Your task to perform on an android device: Search for a 4k TV on Best Buy Image 0: 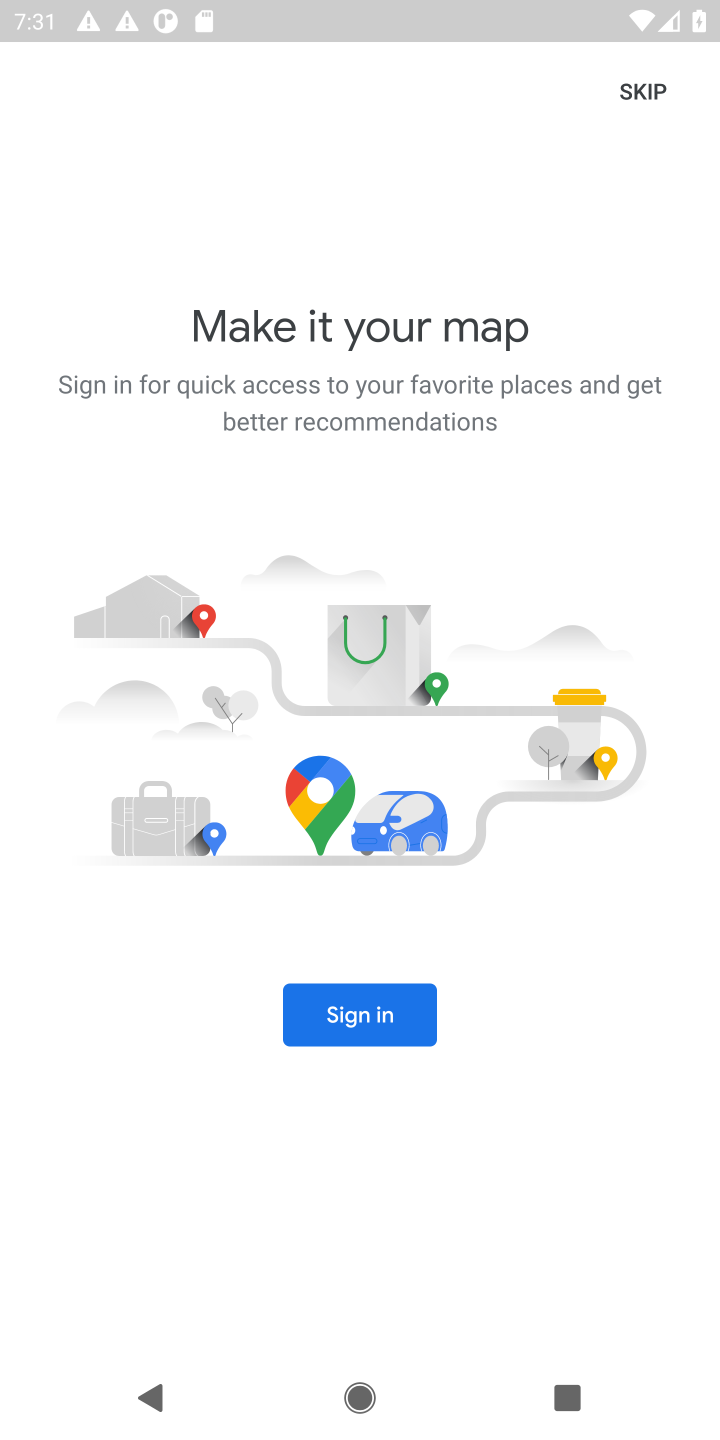
Step 0: press home button
Your task to perform on an android device: Search for a 4k TV on Best Buy Image 1: 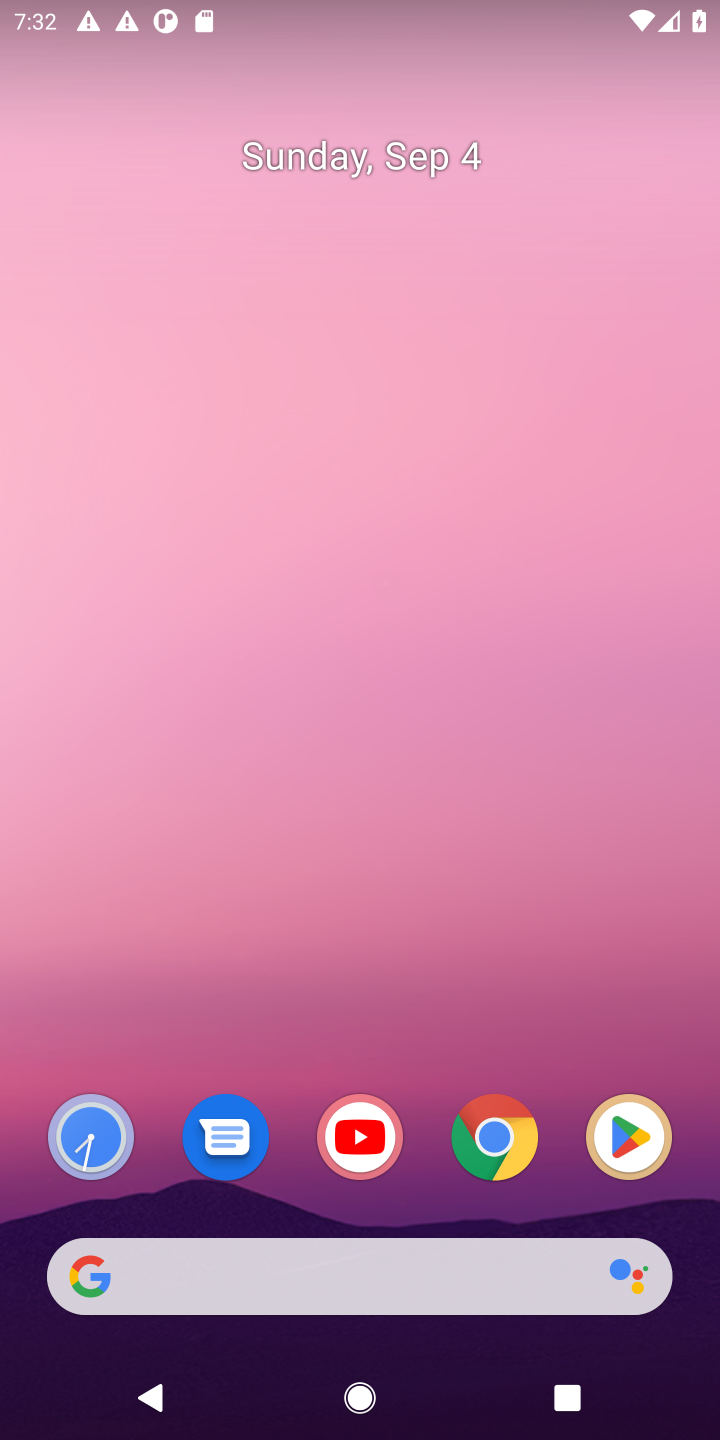
Step 1: click (489, 1140)
Your task to perform on an android device: Search for a 4k TV on Best Buy Image 2: 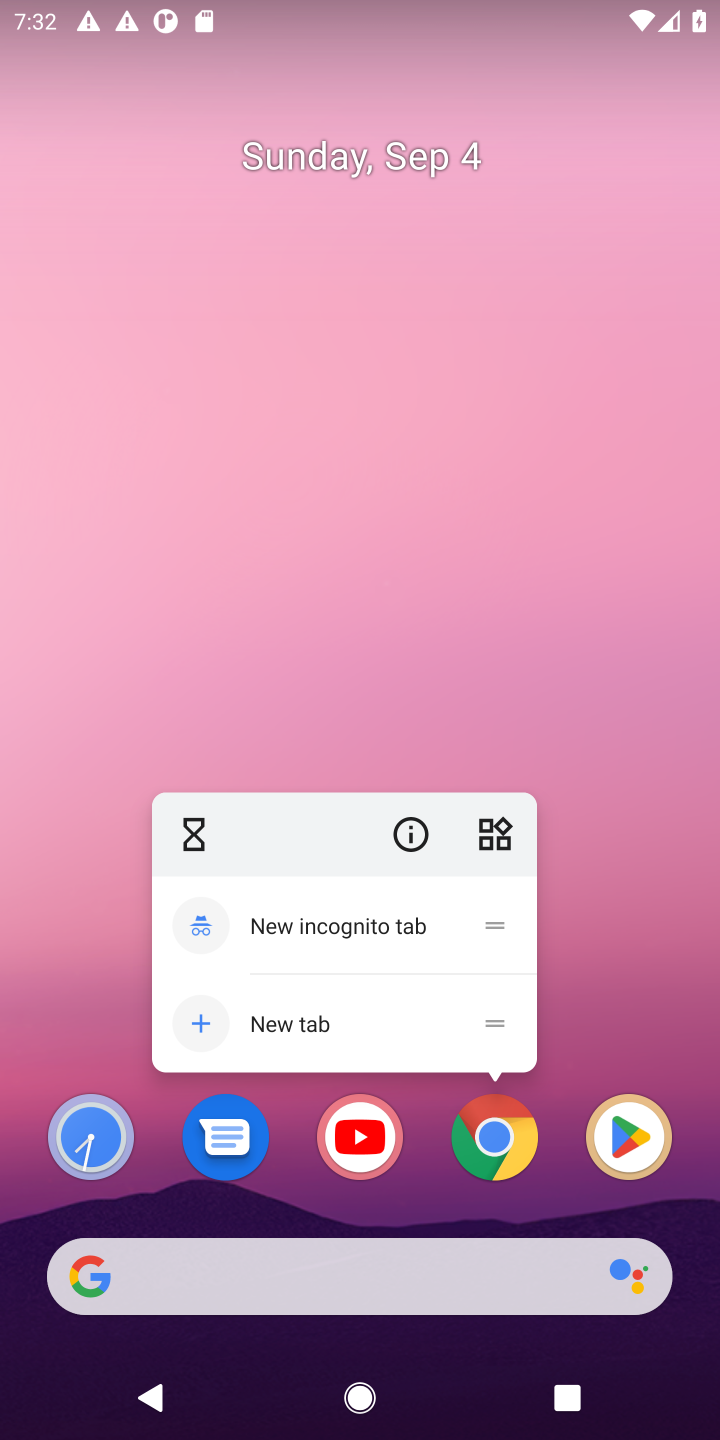
Step 2: click (498, 1136)
Your task to perform on an android device: Search for a 4k TV on Best Buy Image 3: 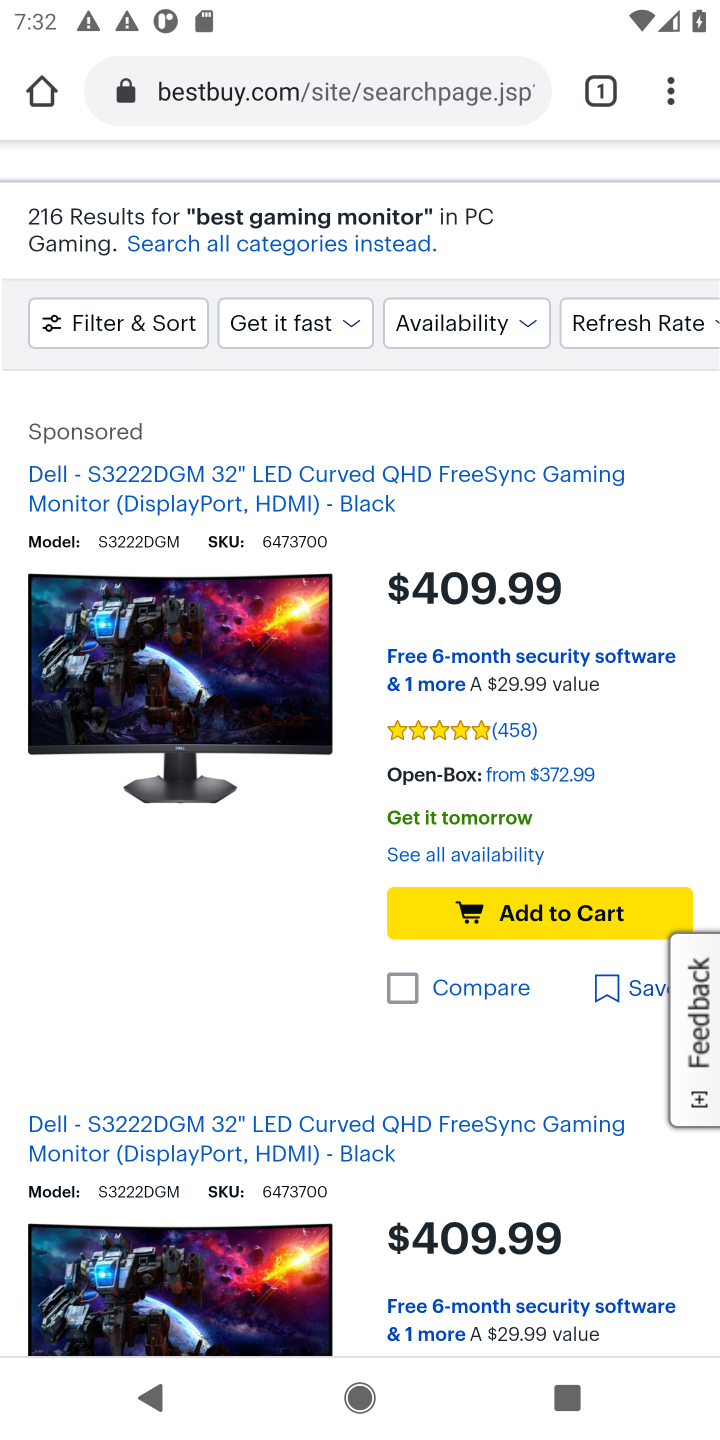
Step 3: click (312, 101)
Your task to perform on an android device: Search for a 4k TV on Best Buy Image 4: 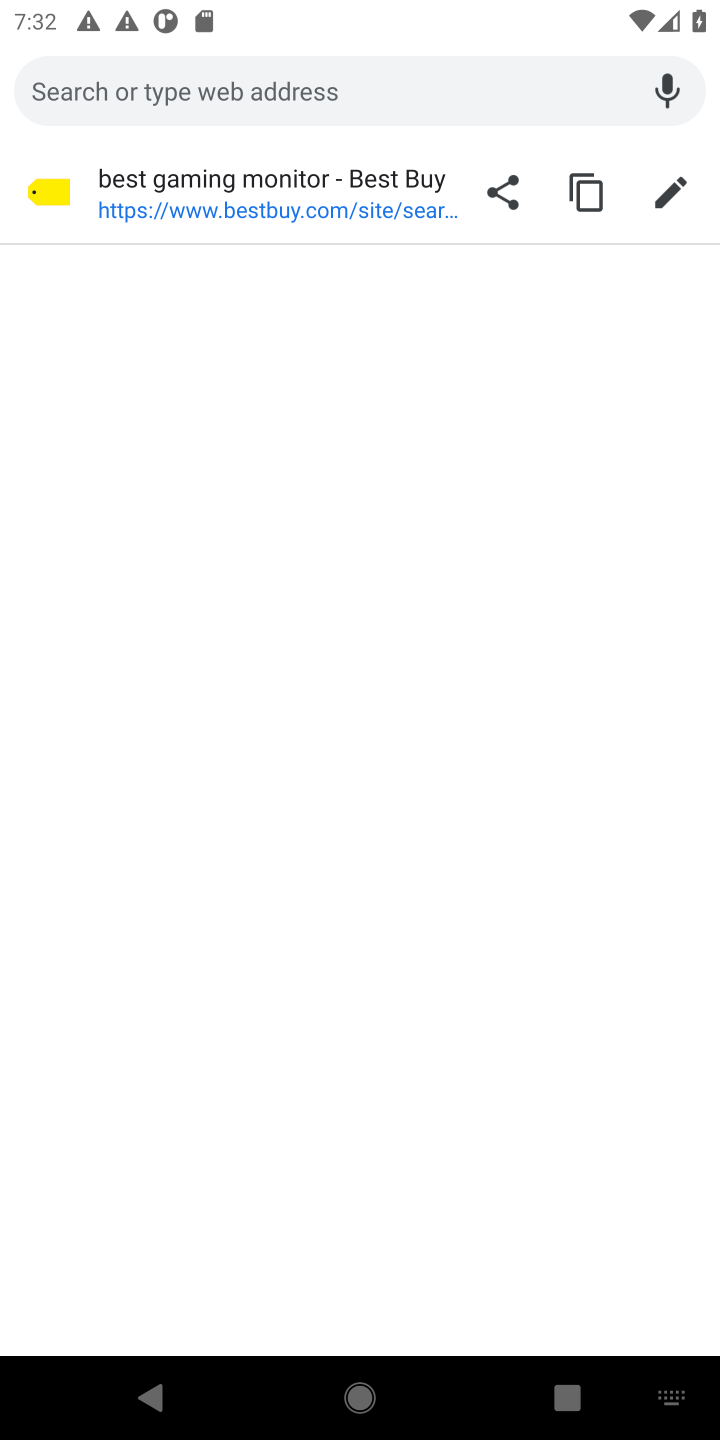
Step 4: type "Best Buy"
Your task to perform on an android device: Search for a 4k TV on Best Buy Image 5: 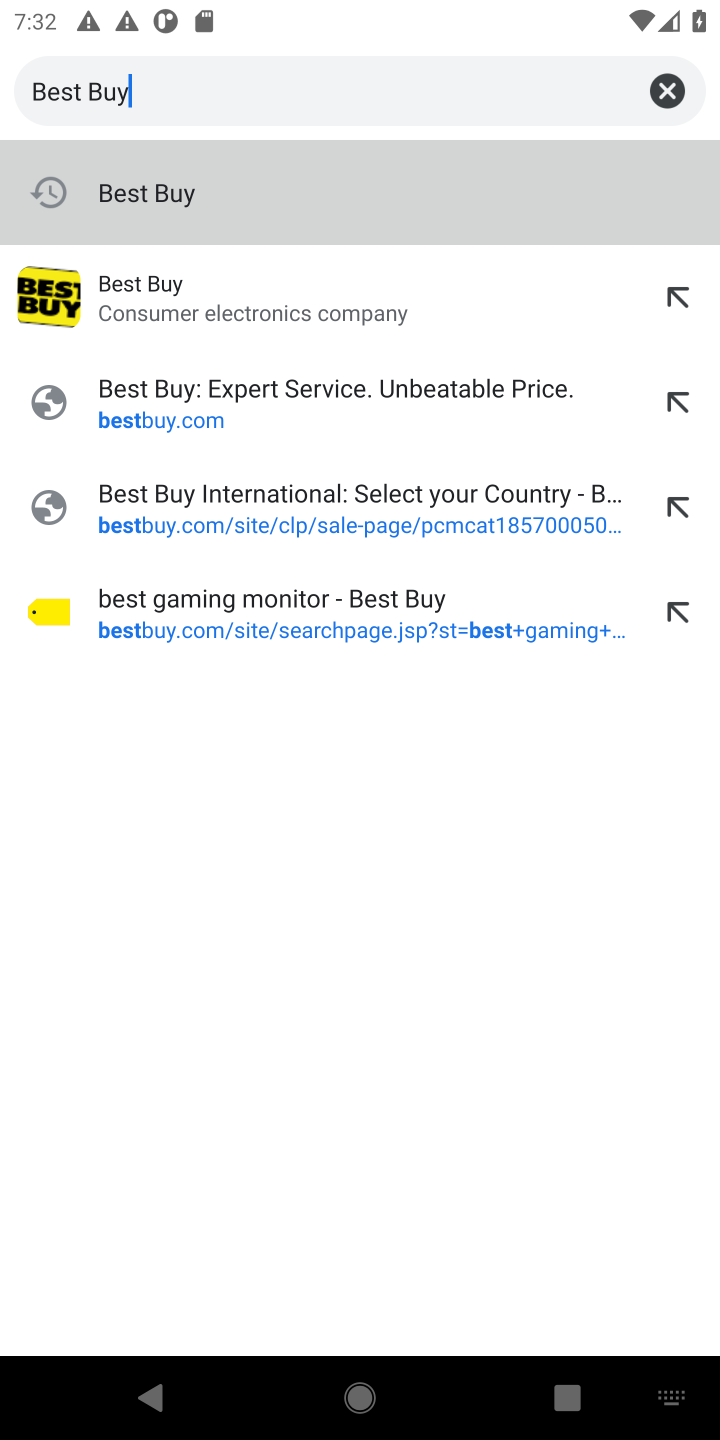
Step 5: click (260, 195)
Your task to perform on an android device: Search for a 4k TV on Best Buy Image 6: 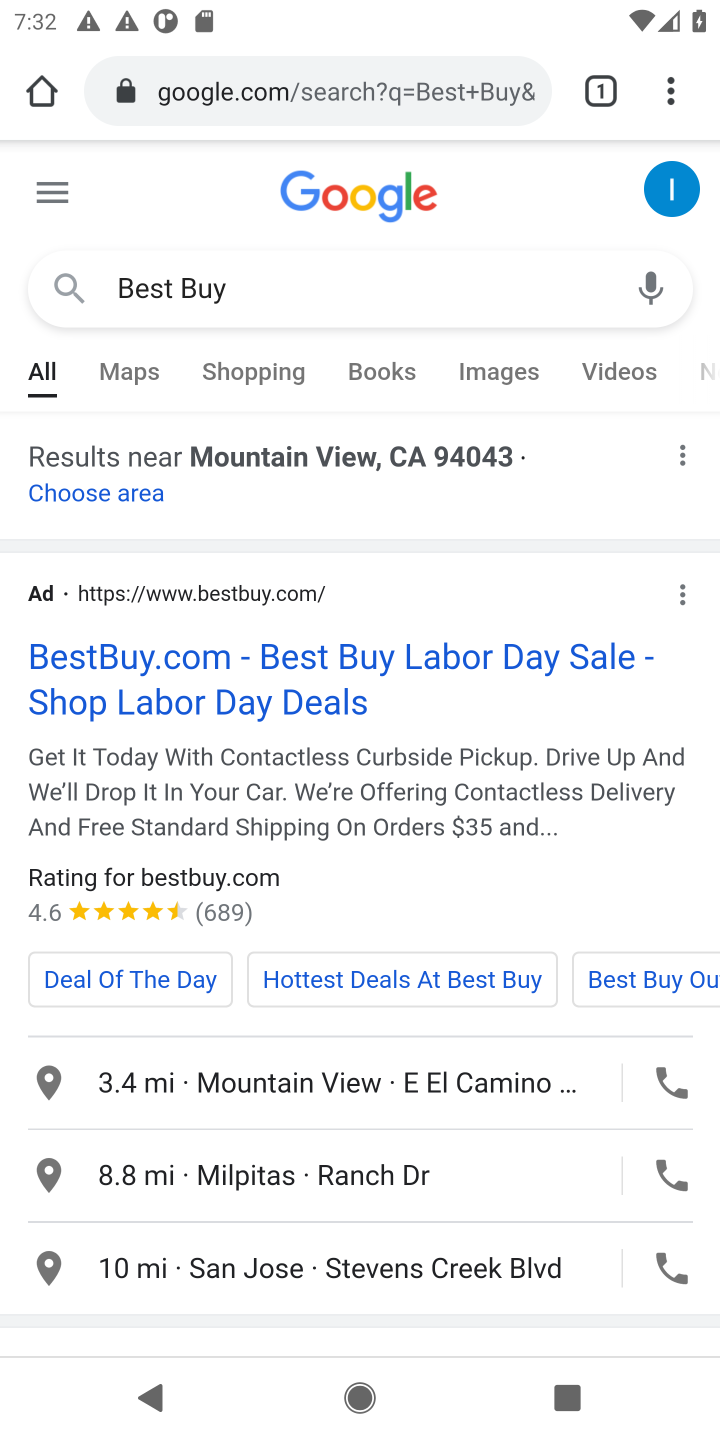
Step 6: click (260, 651)
Your task to perform on an android device: Search for a 4k TV on Best Buy Image 7: 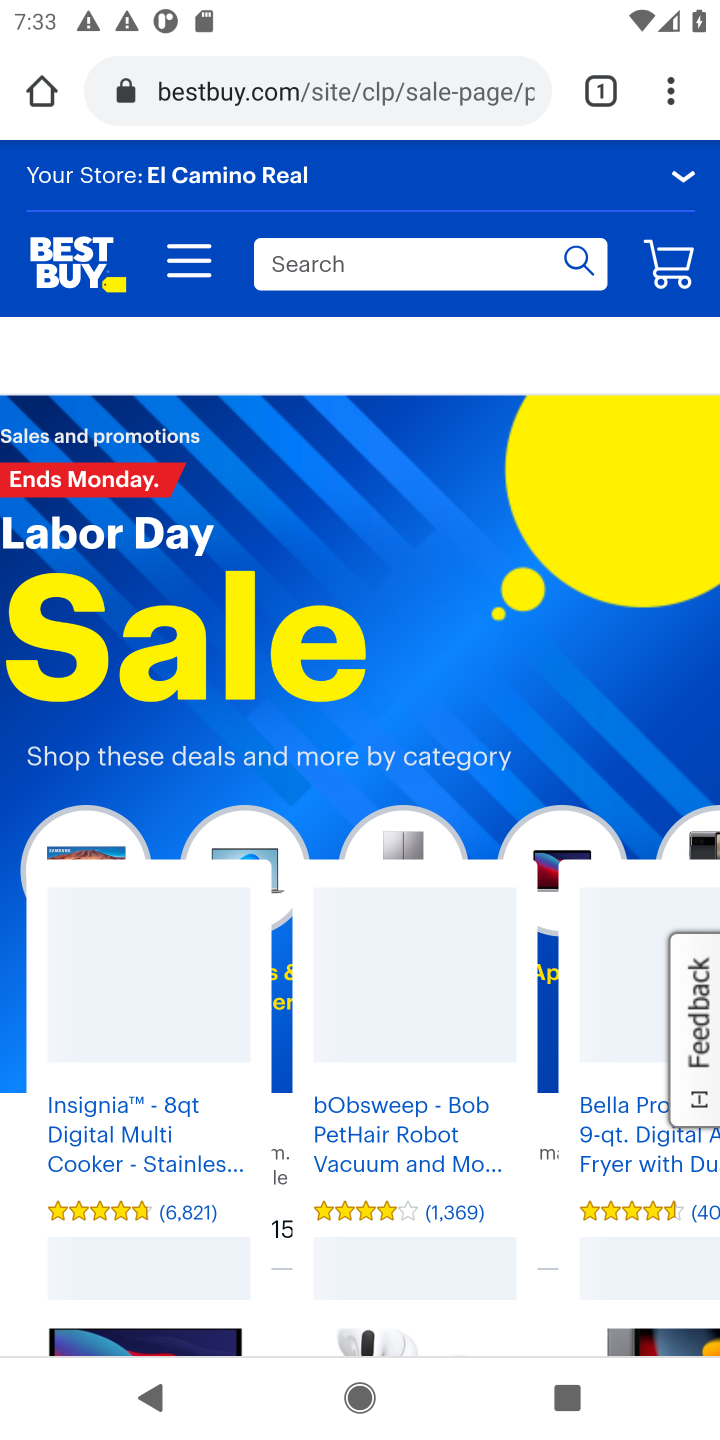
Step 7: click (403, 260)
Your task to perform on an android device: Search for a 4k TV on Best Buy Image 8: 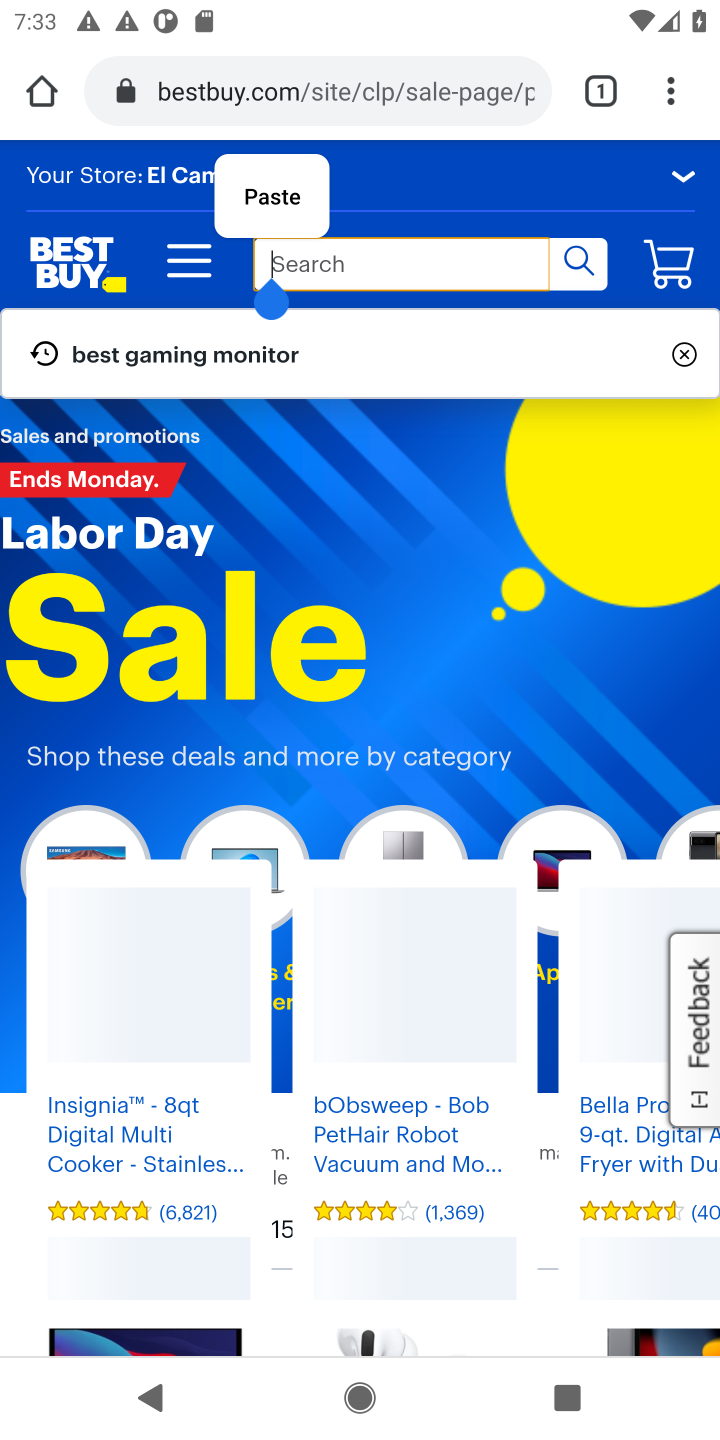
Step 8: click (426, 279)
Your task to perform on an android device: Search for a 4k TV on Best Buy Image 9: 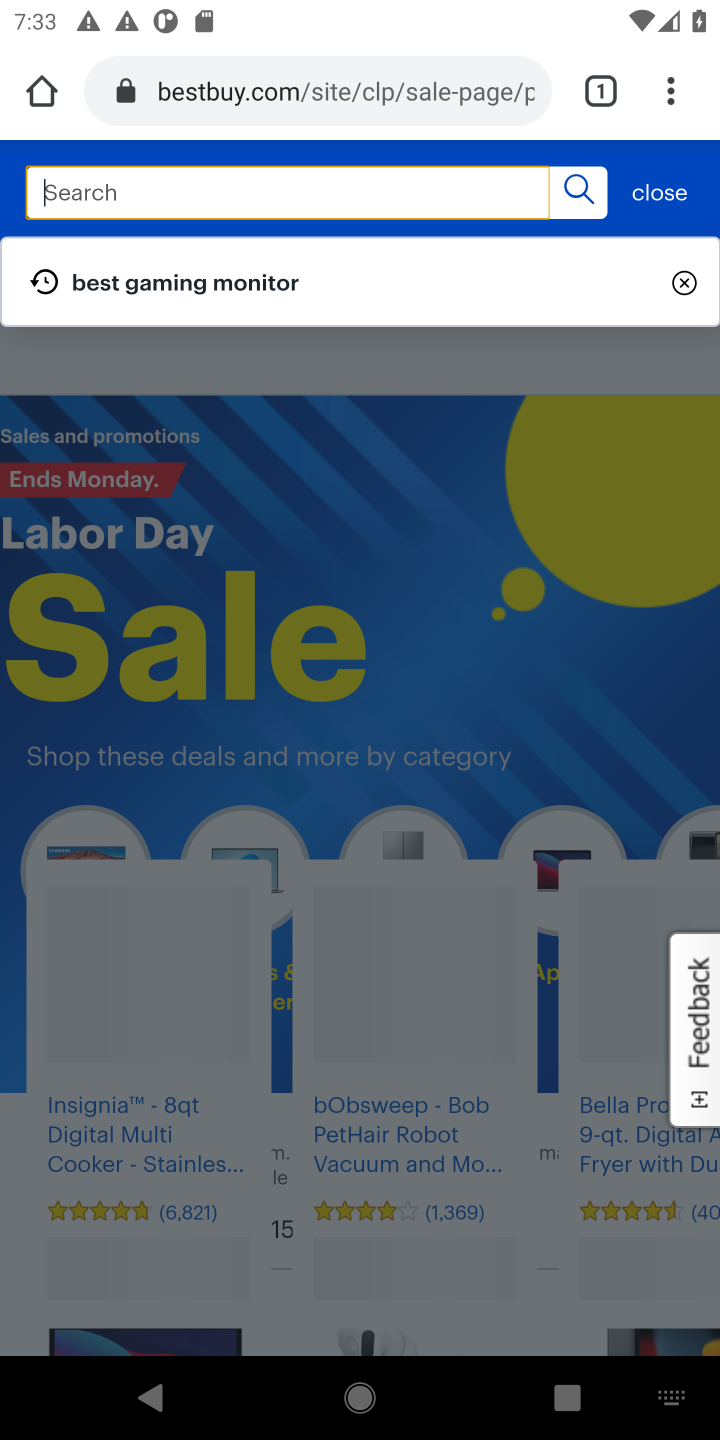
Step 9: type "4K TV"
Your task to perform on an android device: Search for a 4k TV on Best Buy Image 10: 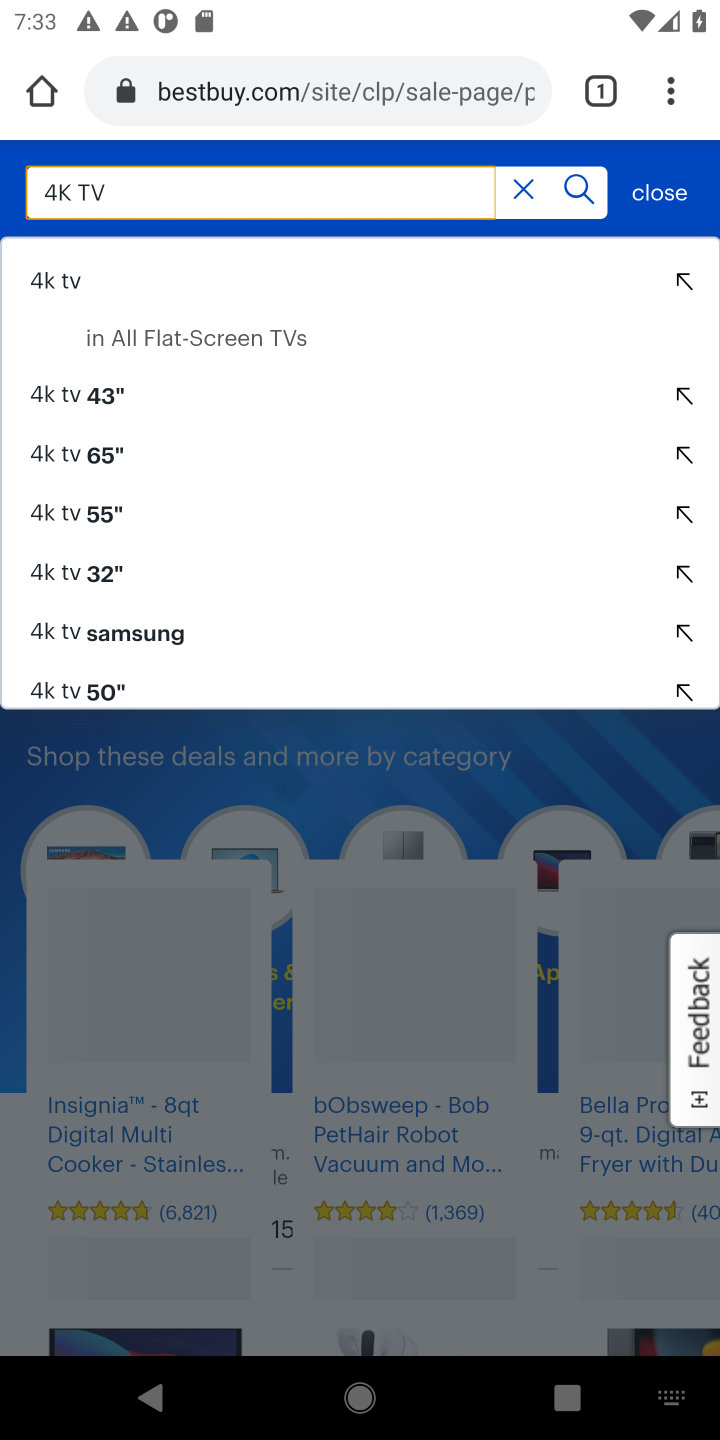
Step 10: click (568, 190)
Your task to perform on an android device: Search for a 4k TV on Best Buy Image 11: 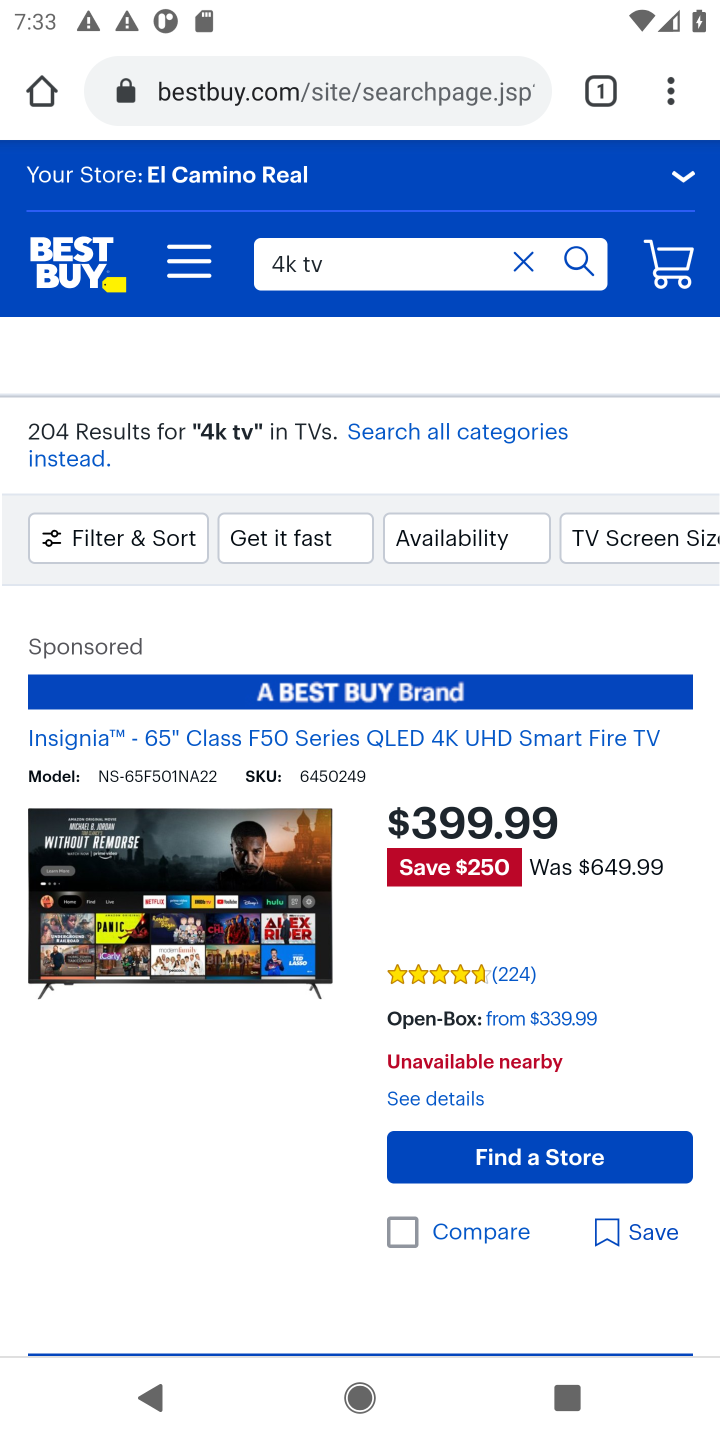
Step 11: task complete